Your task to perform on an android device: turn off picture-in-picture Image 0: 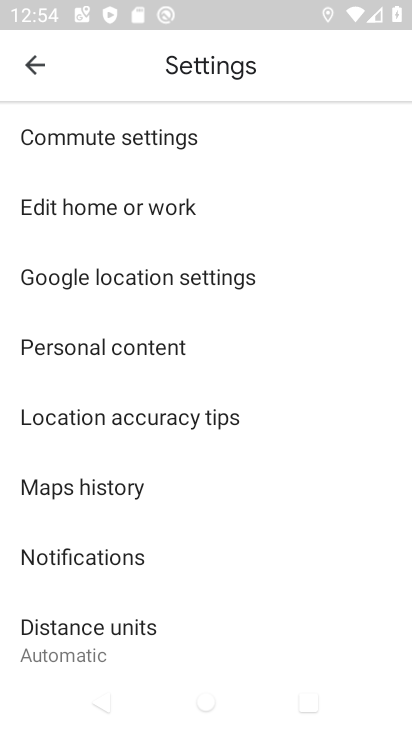
Step 0: press home button
Your task to perform on an android device: turn off picture-in-picture Image 1: 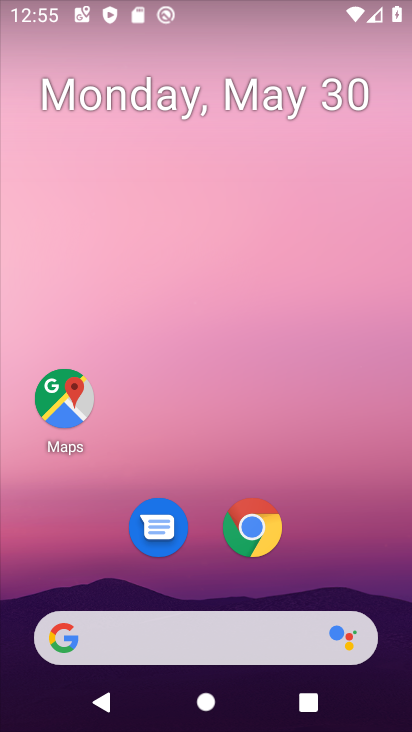
Step 1: drag from (201, 573) to (263, 130)
Your task to perform on an android device: turn off picture-in-picture Image 2: 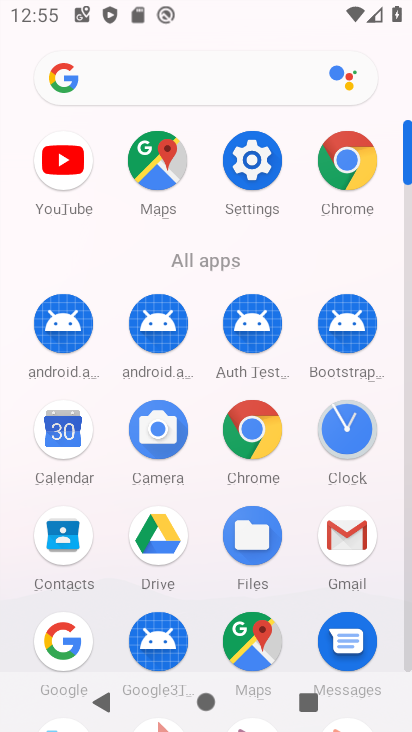
Step 2: click (248, 160)
Your task to perform on an android device: turn off picture-in-picture Image 3: 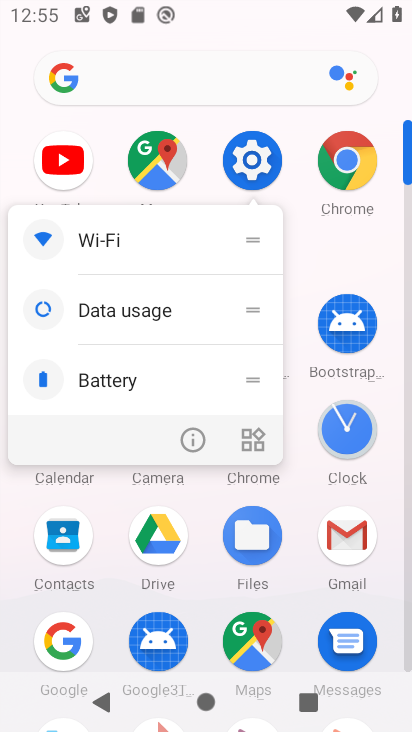
Step 3: click (190, 447)
Your task to perform on an android device: turn off picture-in-picture Image 4: 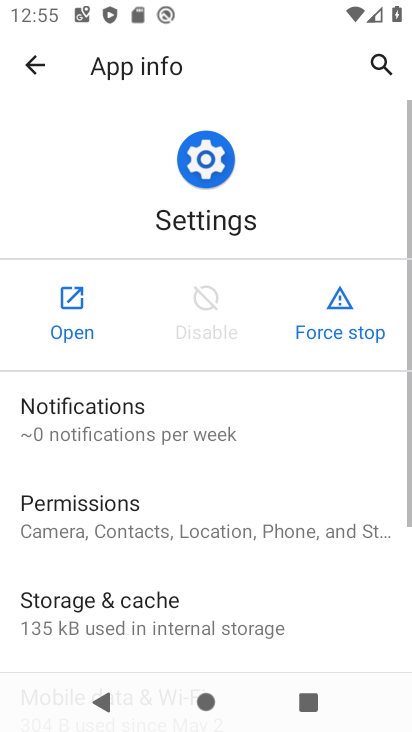
Step 4: click (68, 324)
Your task to perform on an android device: turn off picture-in-picture Image 5: 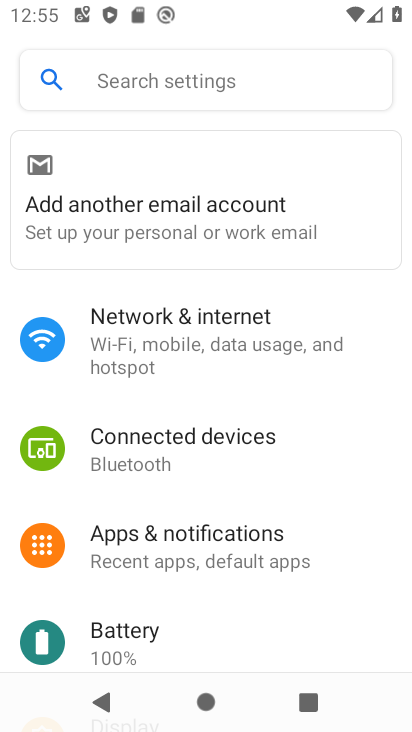
Step 5: drag from (195, 629) to (210, 13)
Your task to perform on an android device: turn off picture-in-picture Image 6: 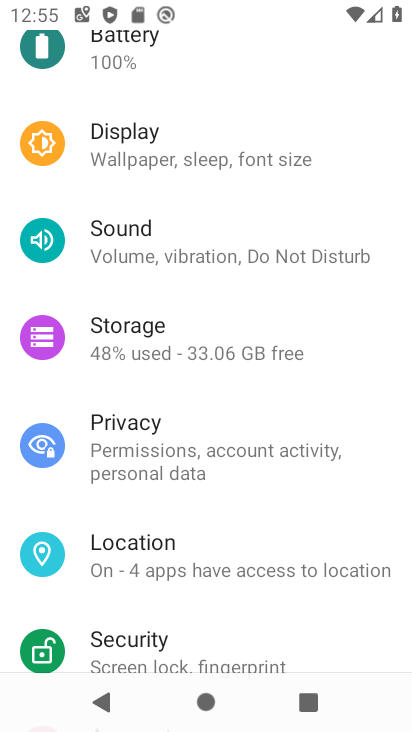
Step 6: drag from (178, 205) to (226, 689)
Your task to perform on an android device: turn off picture-in-picture Image 7: 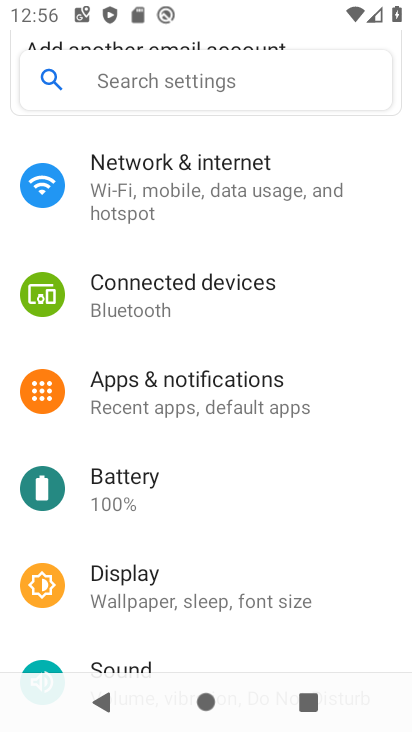
Step 7: drag from (178, 206) to (216, 579)
Your task to perform on an android device: turn off picture-in-picture Image 8: 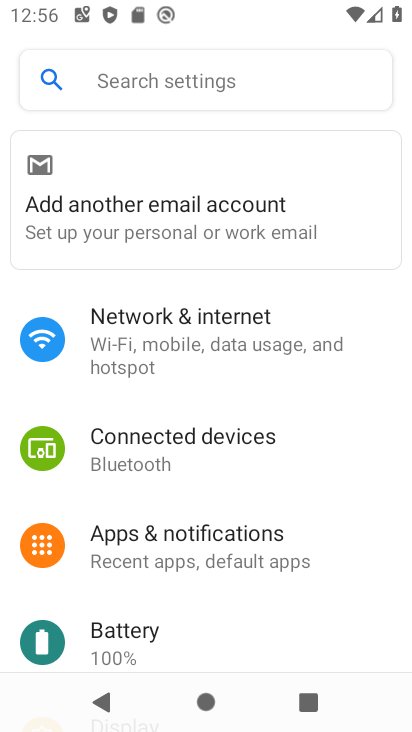
Step 8: click (163, 347)
Your task to perform on an android device: turn off picture-in-picture Image 9: 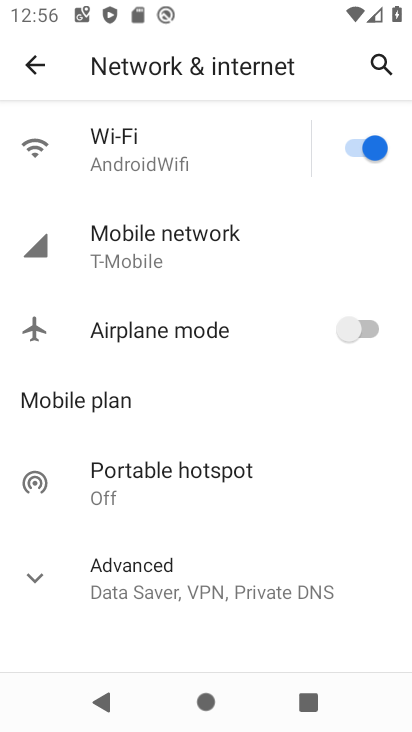
Step 9: click (42, 50)
Your task to perform on an android device: turn off picture-in-picture Image 10: 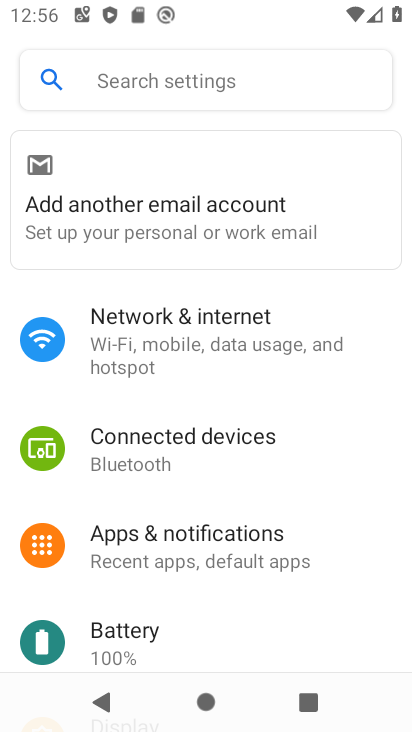
Step 10: click (173, 577)
Your task to perform on an android device: turn off picture-in-picture Image 11: 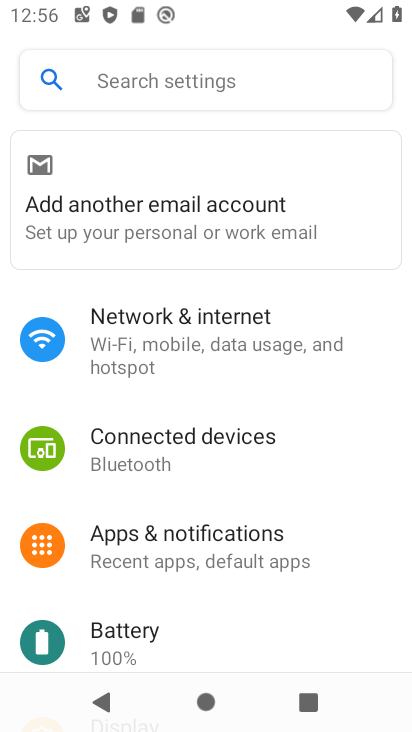
Step 11: drag from (173, 577) to (282, 3)
Your task to perform on an android device: turn off picture-in-picture Image 12: 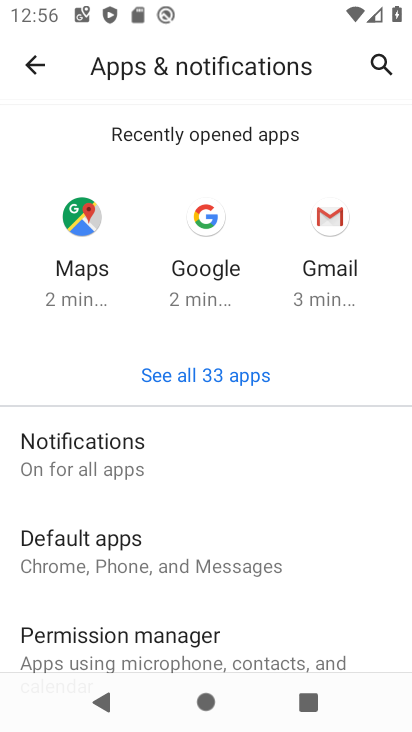
Step 12: drag from (181, 602) to (340, 28)
Your task to perform on an android device: turn off picture-in-picture Image 13: 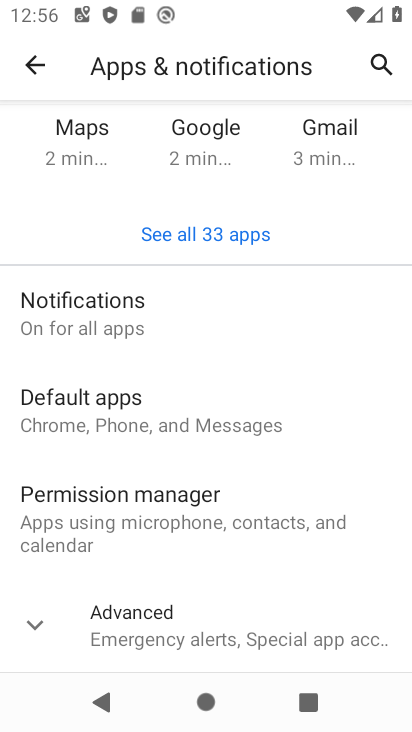
Step 13: click (169, 626)
Your task to perform on an android device: turn off picture-in-picture Image 14: 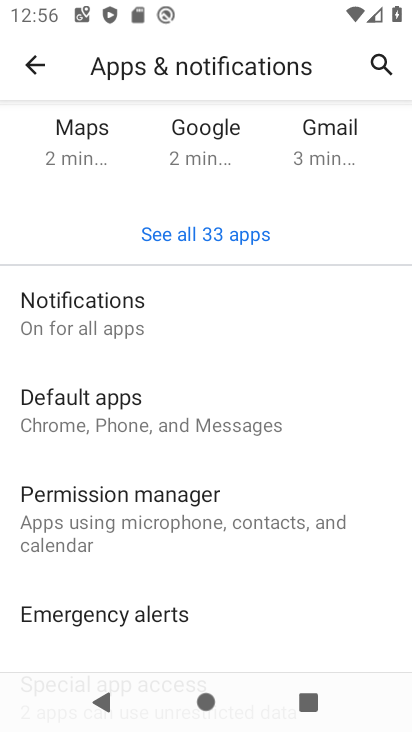
Step 14: drag from (152, 564) to (232, 293)
Your task to perform on an android device: turn off picture-in-picture Image 15: 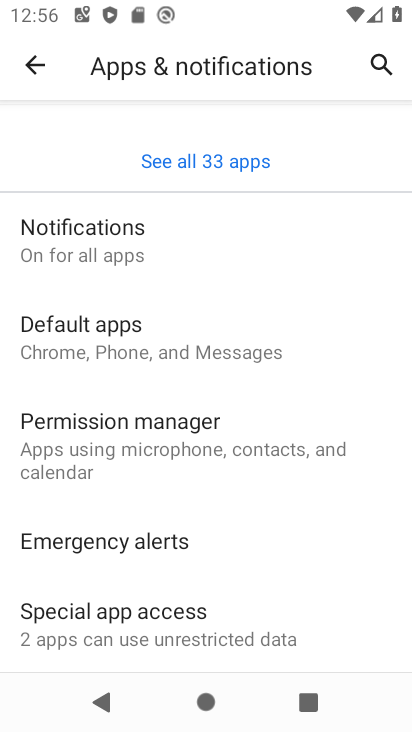
Step 15: drag from (172, 610) to (230, 185)
Your task to perform on an android device: turn off picture-in-picture Image 16: 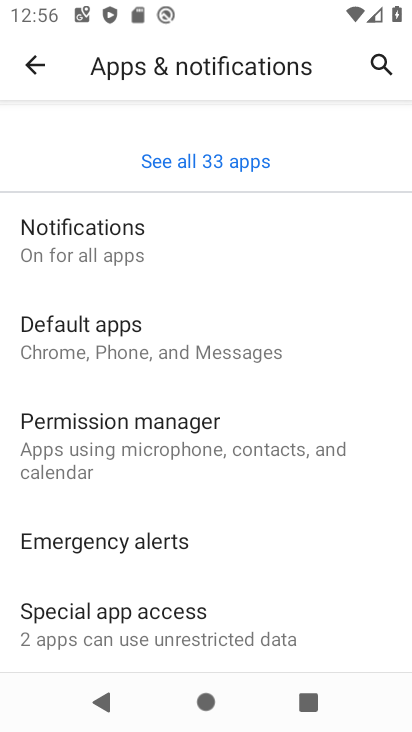
Step 16: click (122, 606)
Your task to perform on an android device: turn off picture-in-picture Image 17: 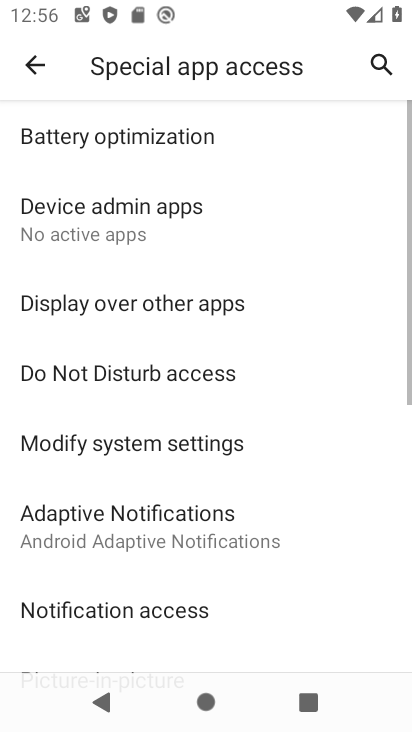
Step 17: drag from (180, 592) to (261, 52)
Your task to perform on an android device: turn off picture-in-picture Image 18: 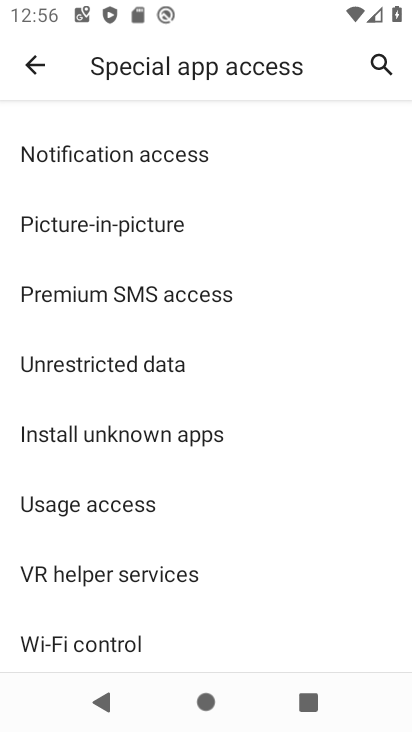
Step 18: click (166, 236)
Your task to perform on an android device: turn off picture-in-picture Image 19: 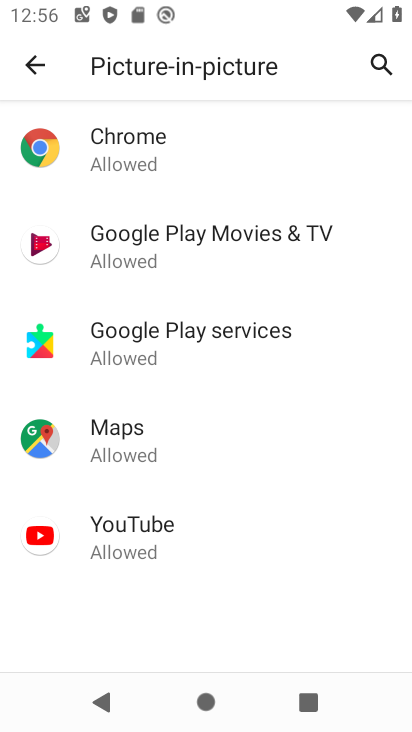
Step 19: task complete